Your task to perform on an android device: change your default location settings in chrome Image 0: 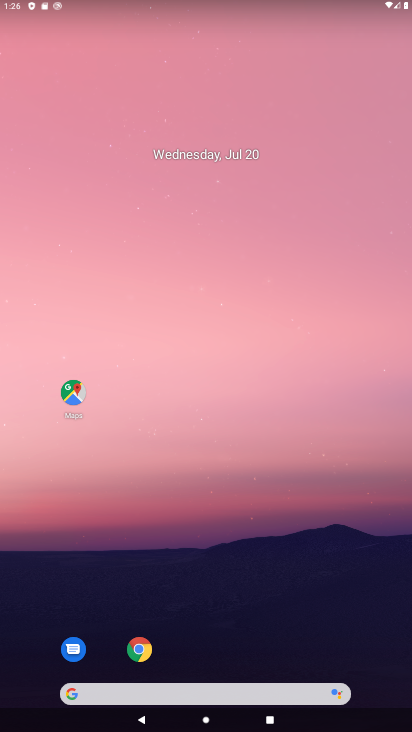
Step 0: click (132, 652)
Your task to perform on an android device: change your default location settings in chrome Image 1: 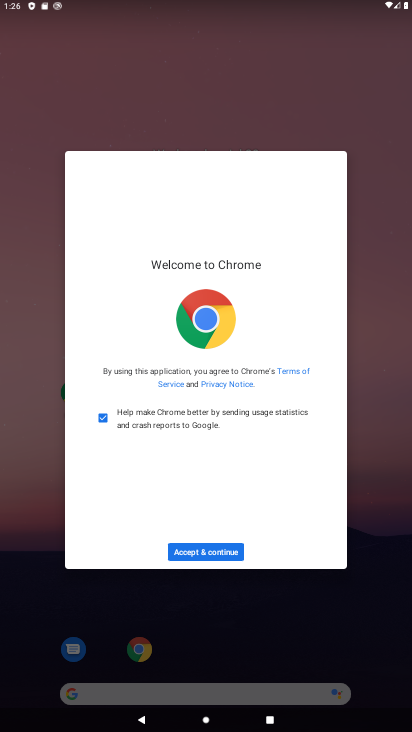
Step 1: click (225, 554)
Your task to perform on an android device: change your default location settings in chrome Image 2: 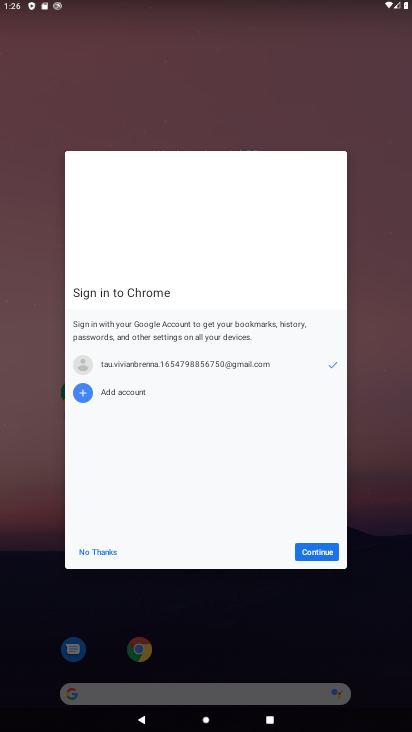
Step 2: click (303, 547)
Your task to perform on an android device: change your default location settings in chrome Image 3: 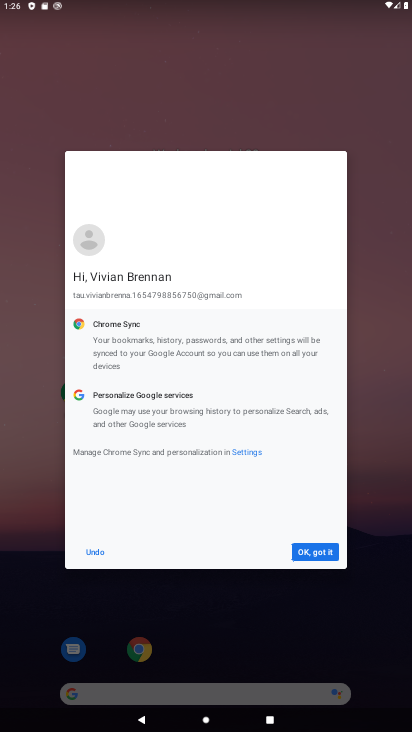
Step 3: click (309, 554)
Your task to perform on an android device: change your default location settings in chrome Image 4: 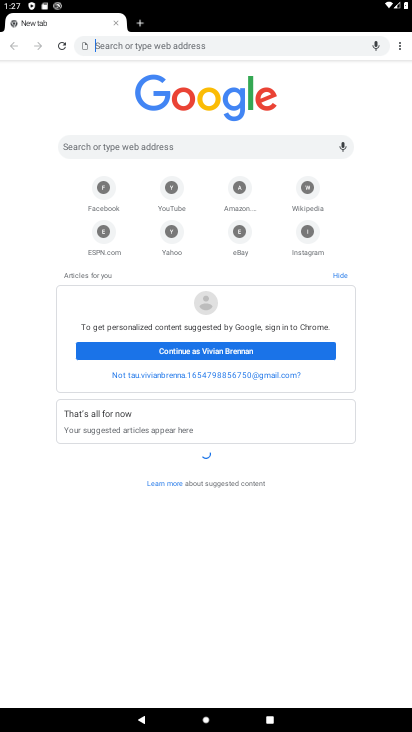
Step 4: task complete